Your task to perform on an android device: Go to internet settings Image 0: 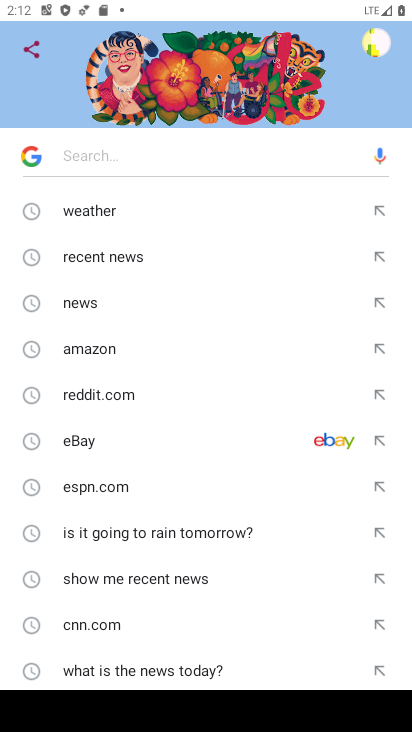
Step 0: press back button
Your task to perform on an android device: Go to internet settings Image 1: 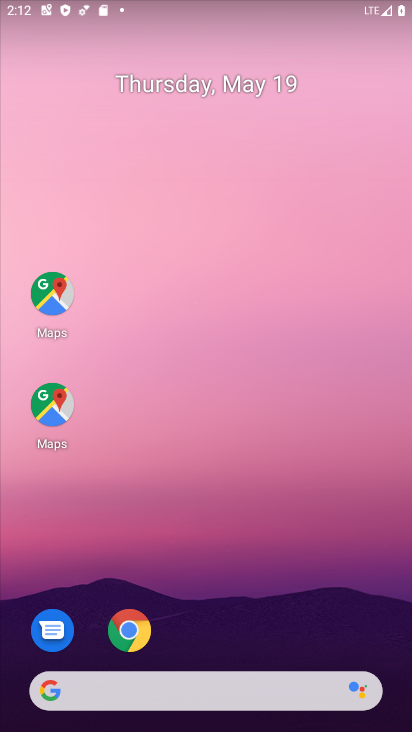
Step 1: drag from (204, 515) to (199, 19)
Your task to perform on an android device: Go to internet settings Image 2: 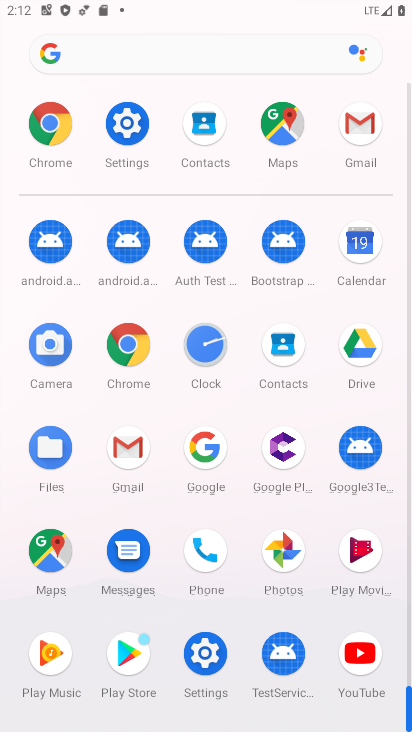
Step 2: click (126, 119)
Your task to perform on an android device: Go to internet settings Image 3: 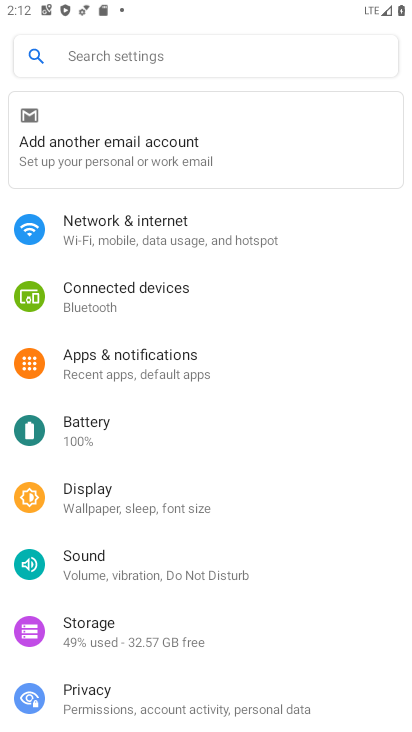
Step 3: click (168, 222)
Your task to perform on an android device: Go to internet settings Image 4: 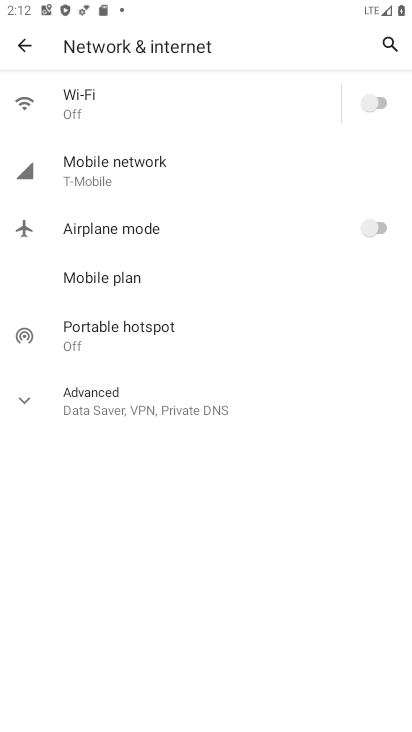
Step 4: click (30, 400)
Your task to perform on an android device: Go to internet settings Image 5: 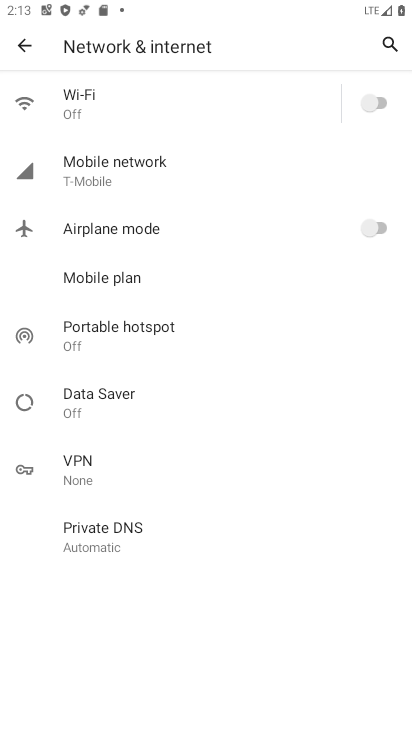
Step 5: task complete